Your task to perform on an android device: change the clock display to analog Image 0: 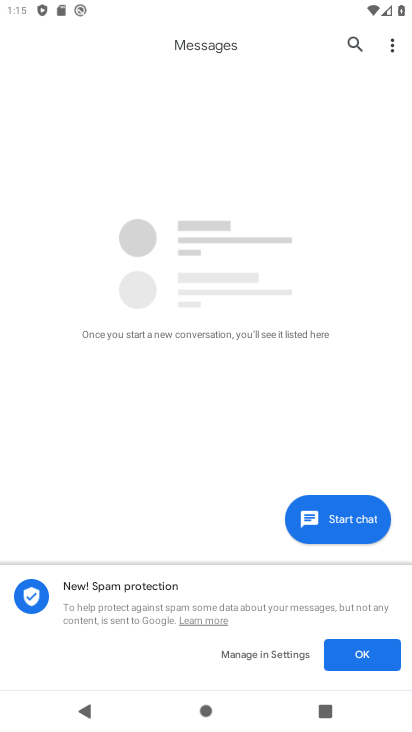
Step 0: drag from (206, 625) to (281, 143)
Your task to perform on an android device: change the clock display to analog Image 1: 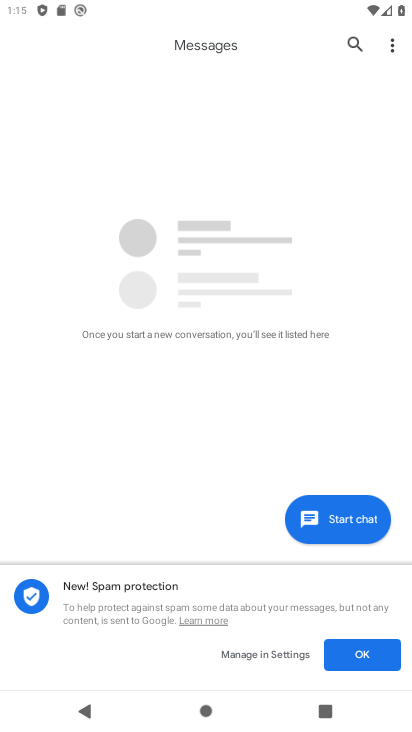
Step 1: press home button
Your task to perform on an android device: change the clock display to analog Image 2: 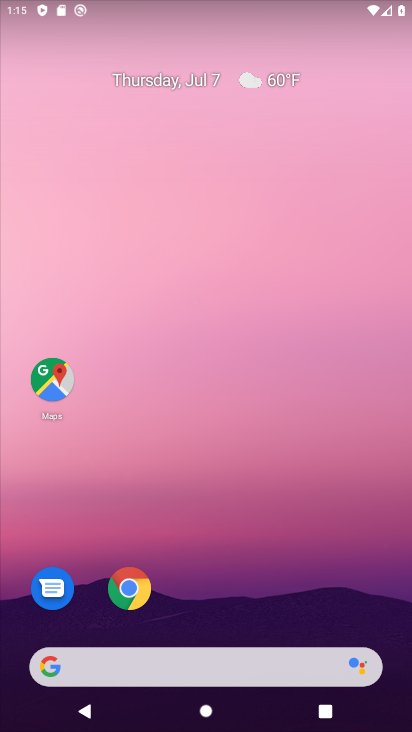
Step 2: drag from (192, 617) to (201, 92)
Your task to perform on an android device: change the clock display to analog Image 3: 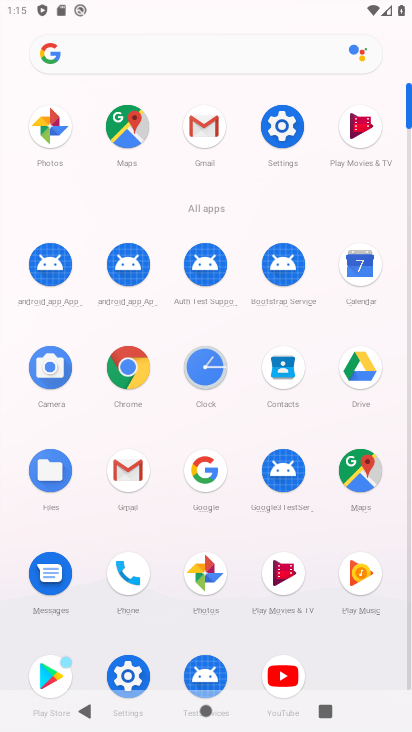
Step 3: click (204, 369)
Your task to perform on an android device: change the clock display to analog Image 4: 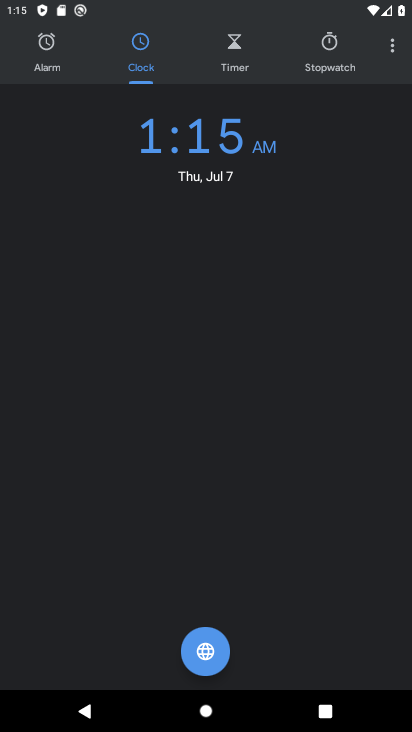
Step 4: click (394, 51)
Your task to perform on an android device: change the clock display to analog Image 5: 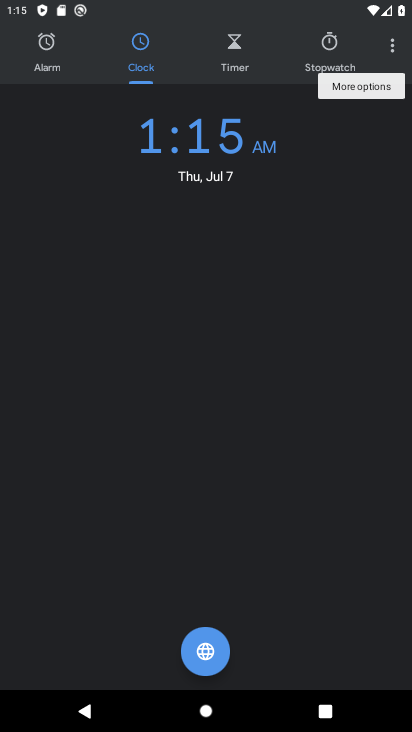
Step 5: click (383, 51)
Your task to perform on an android device: change the clock display to analog Image 6: 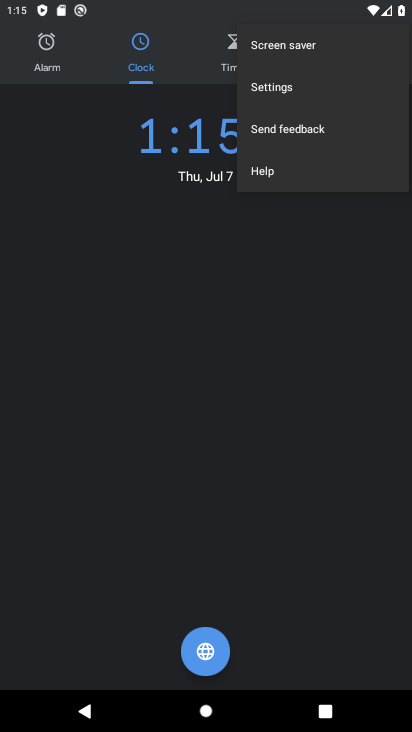
Step 6: click (316, 90)
Your task to perform on an android device: change the clock display to analog Image 7: 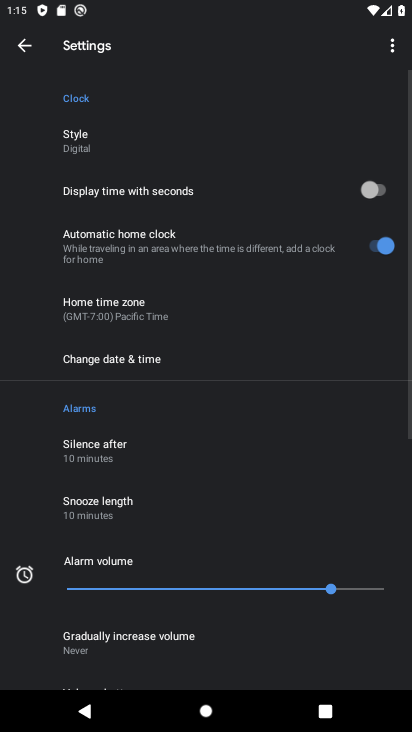
Step 7: click (123, 142)
Your task to perform on an android device: change the clock display to analog Image 8: 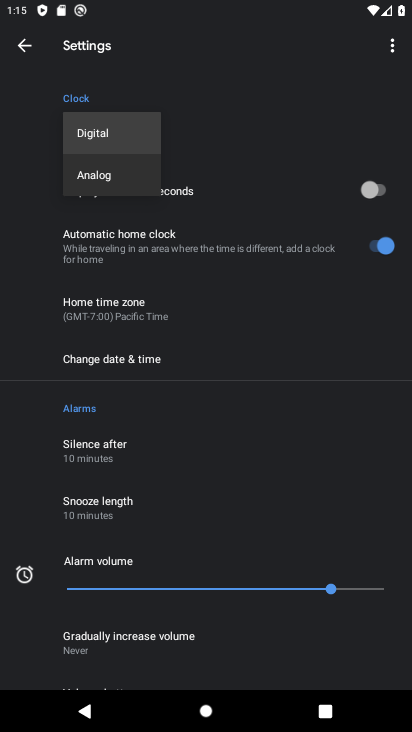
Step 8: click (113, 165)
Your task to perform on an android device: change the clock display to analog Image 9: 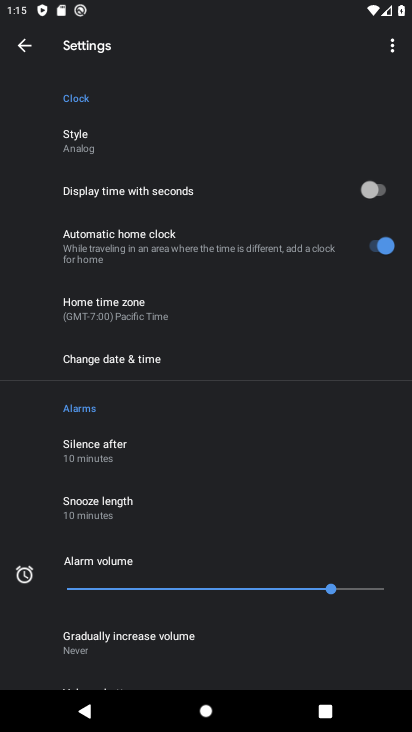
Step 9: task complete